Your task to perform on an android device: What is the news today? Image 0: 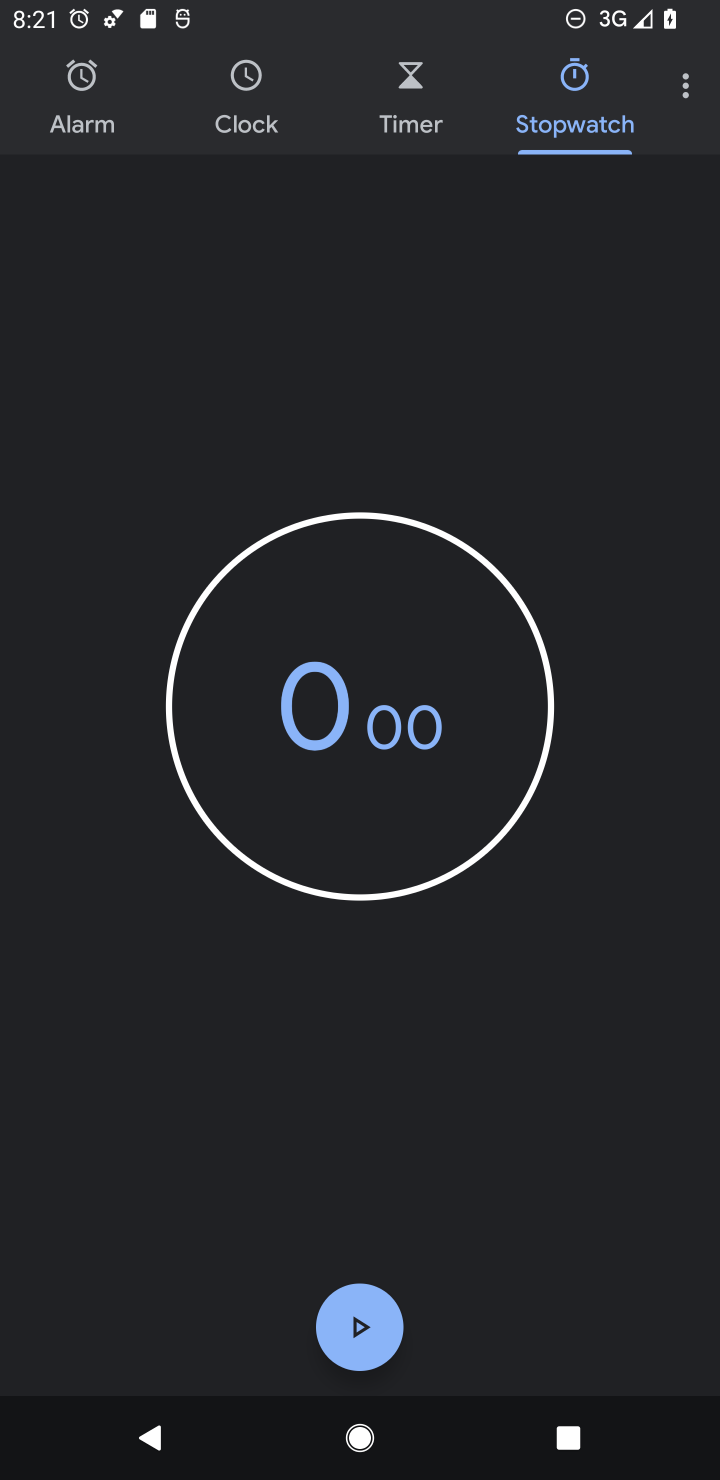
Step 0: press home button
Your task to perform on an android device: What is the news today? Image 1: 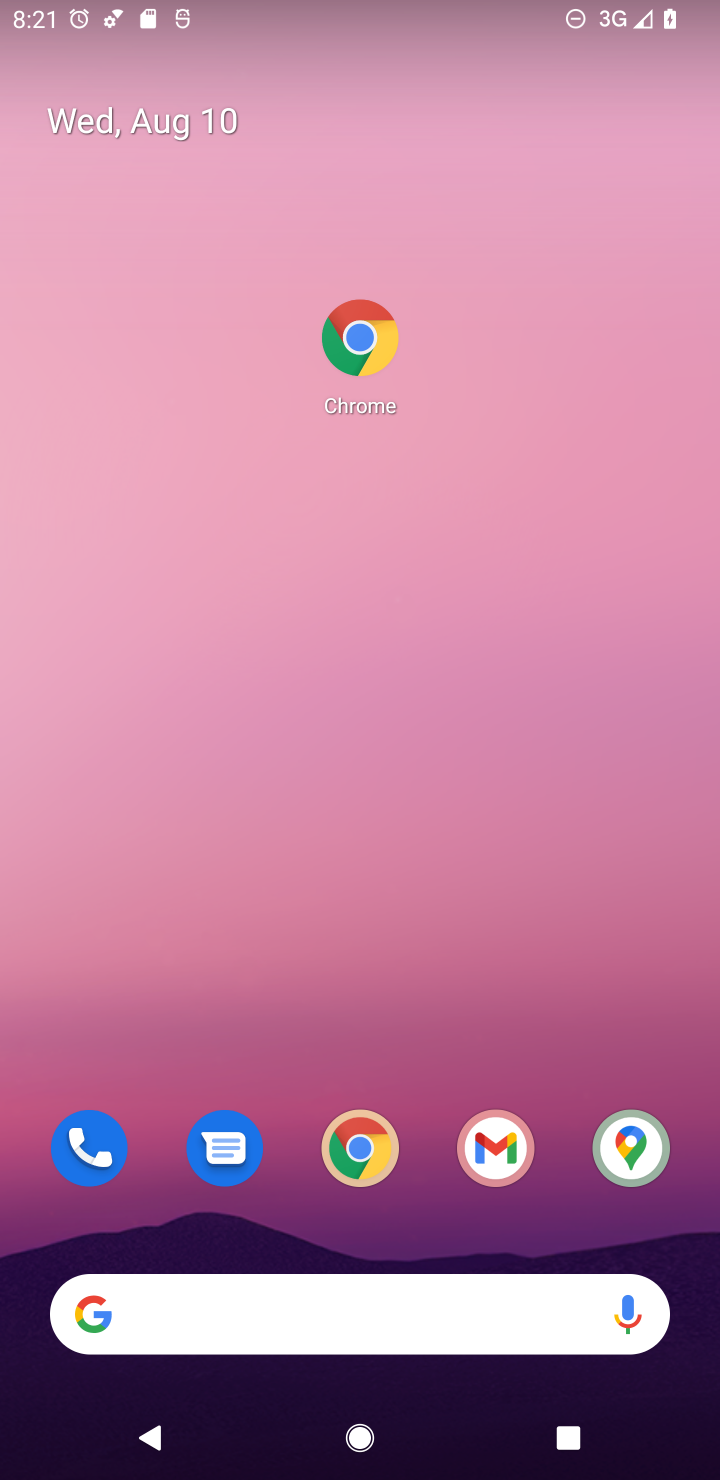
Step 1: click (372, 1342)
Your task to perform on an android device: What is the news today? Image 2: 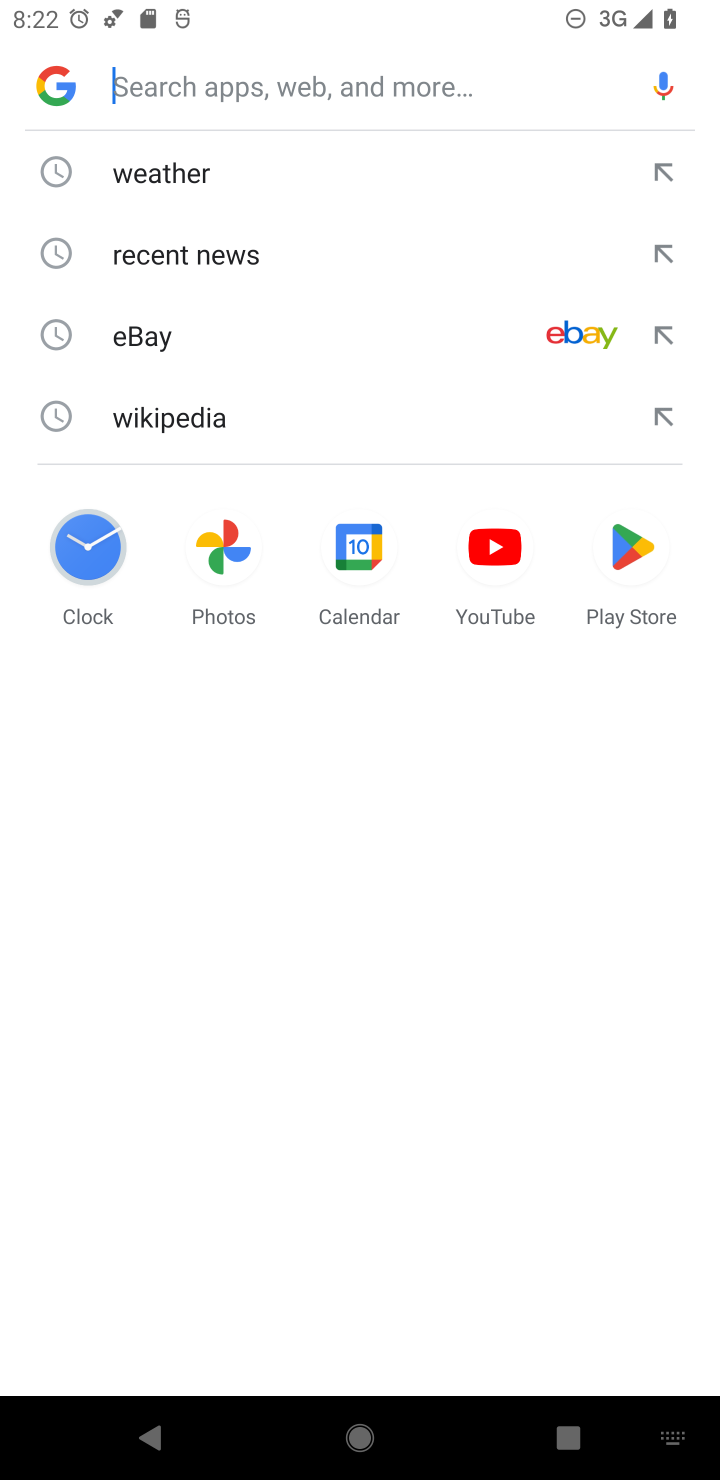
Step 2: click (111, 261)
Your task to perform on an android device: What is the news today? Image 3: 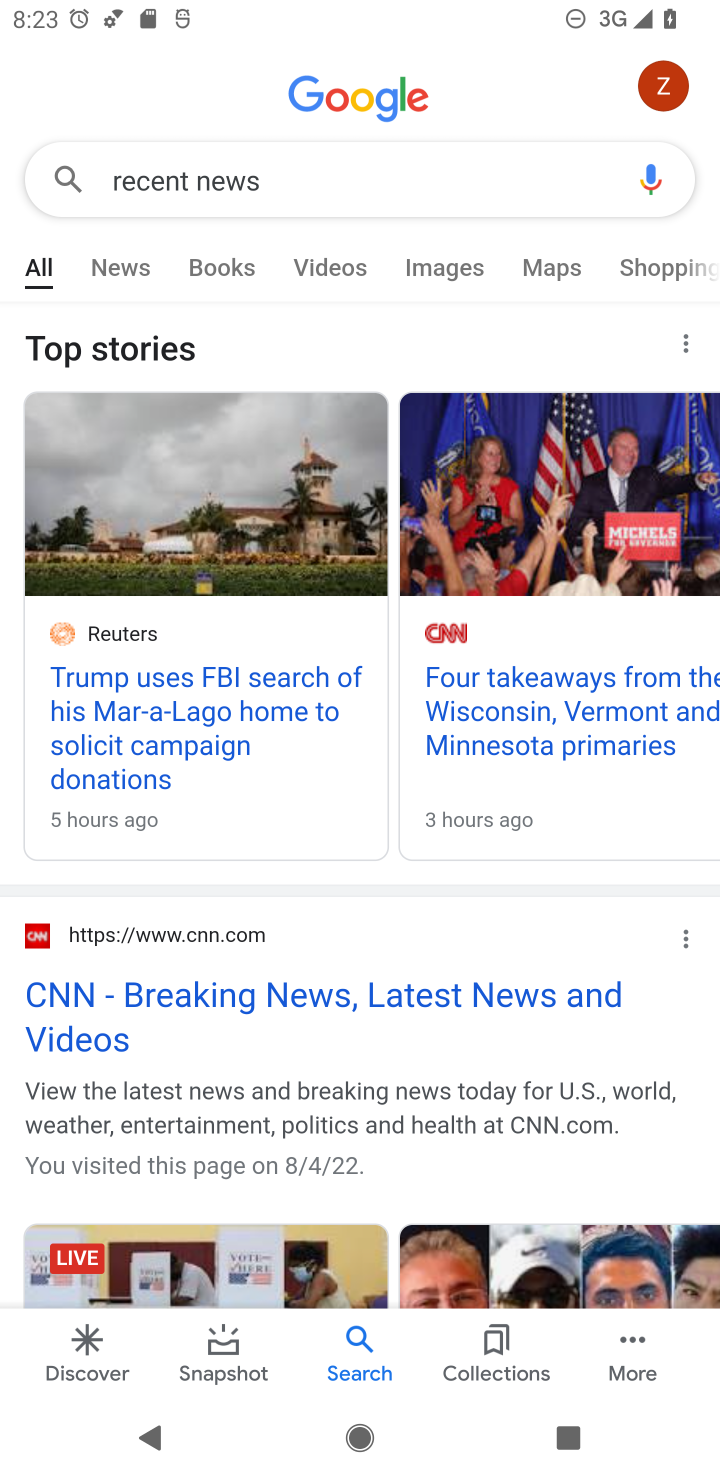
Step 3: task complete